Your task to perform on an android device: Open Chrome and go to settings Image 0: 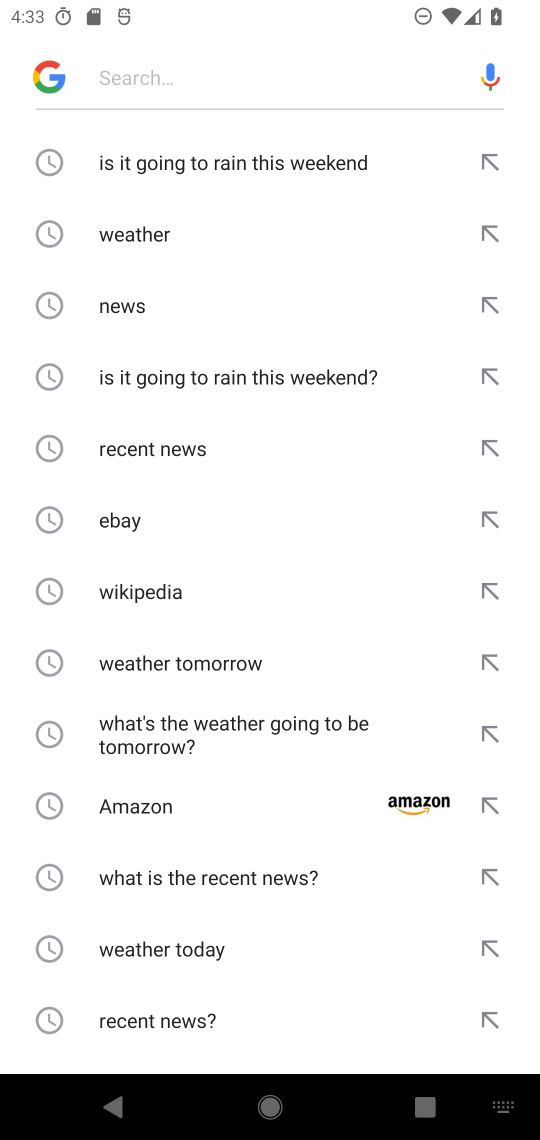
Step 0: press home button
Your task to perform on an android device: Open Chrome and go to settings Image 1: 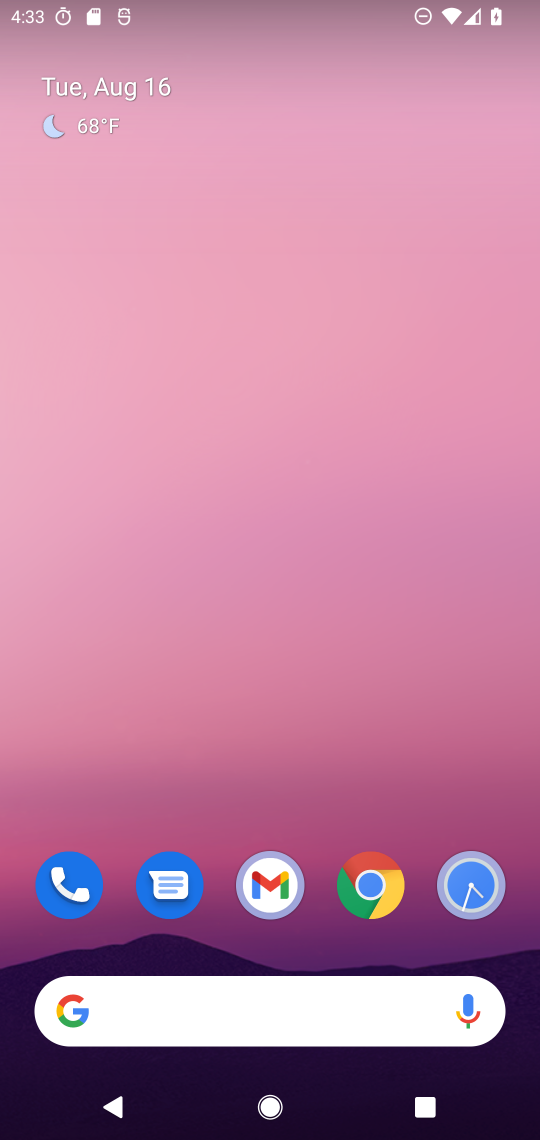
Step 1: drag from (177, 985) to (179, 161)
Your task to perform on an android device: Open Chrome and go to settings Image 2: 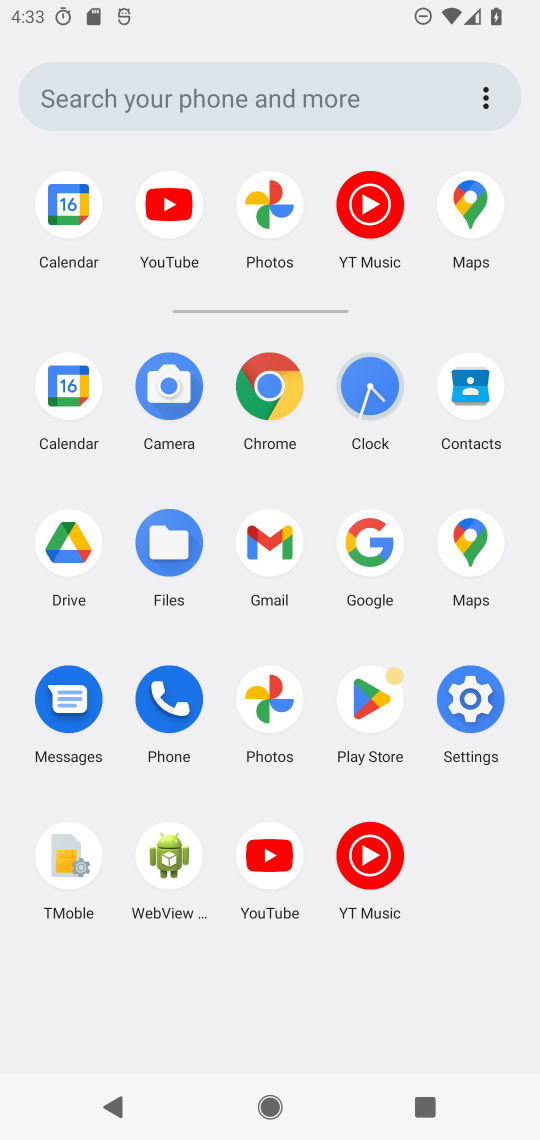
Step 2: click (258, 375)
Your task to perform on an android device: Open Chrome and go to settings Image 3: 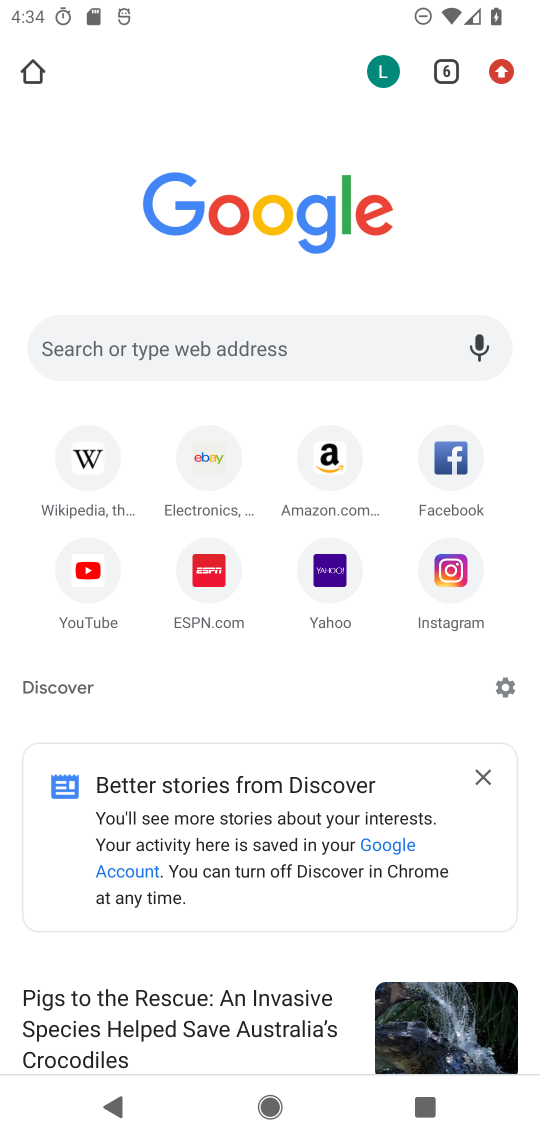
Step 3: click (508, 71)
Your task to perform on an android device: Open Chrome and go to settings Image 4: 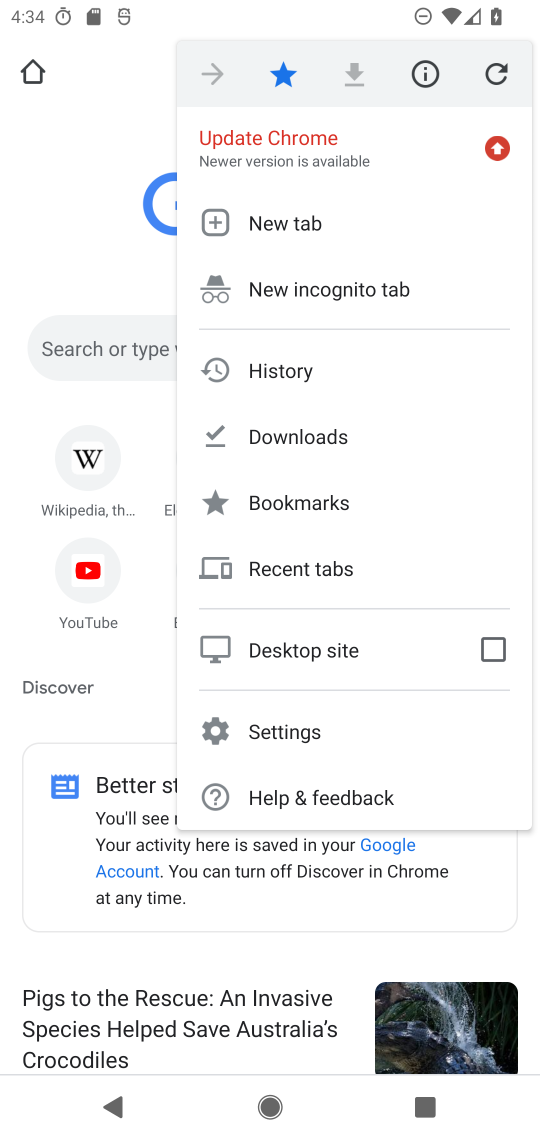
Step 4: click (309, 722)
Your task to perform on an android device: Open Chrome and go to settings Image 5: 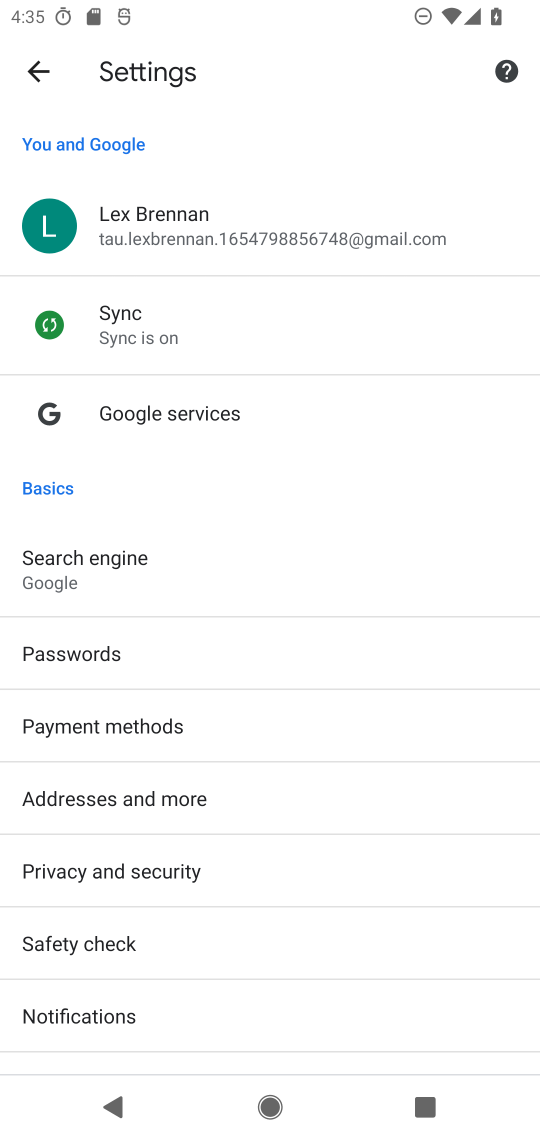
Step 5: task complete